Your task to perform on an android device: turn off improve location accuracy Image 0: 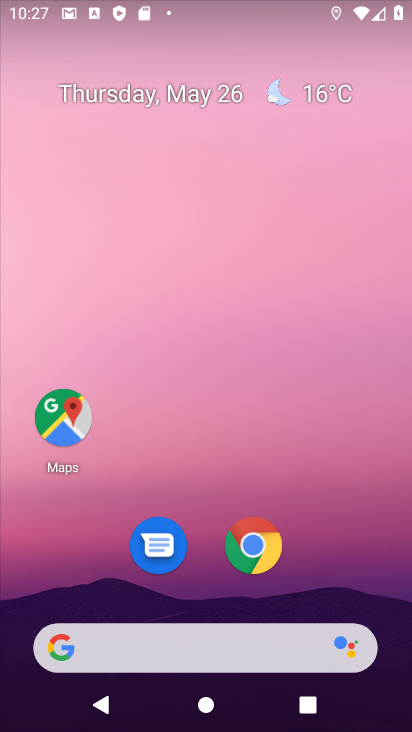
Step 0: press home button
Your task to perform on an android device: turn off improve location accuracy Image 1: 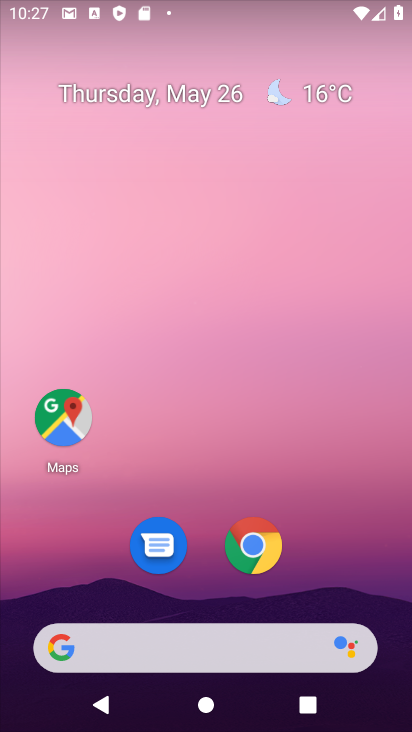
Step 1: drag from (210, 576) to (213, 173)
Your task to perform on an android device: turn off improve location accuracy Image 2: 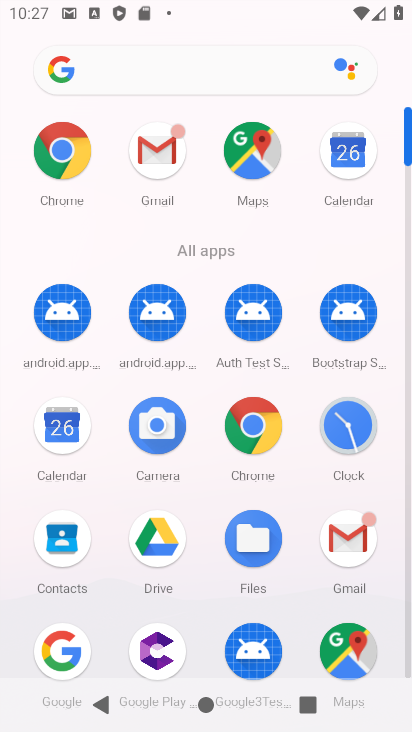
Step 2: drag from (385, 598) to (341, 143)
Your task to perform on an android device: turn off improve location accuracy Image 3: 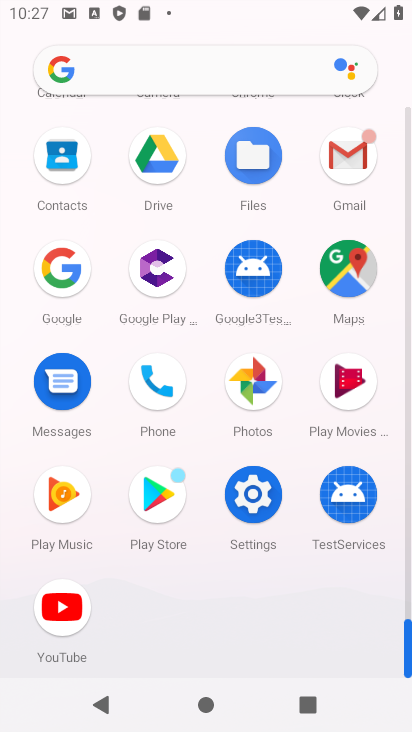
Step 3: click (245, 487)
Your task to perform on an android device: turn off improve location accuracy Image 4: 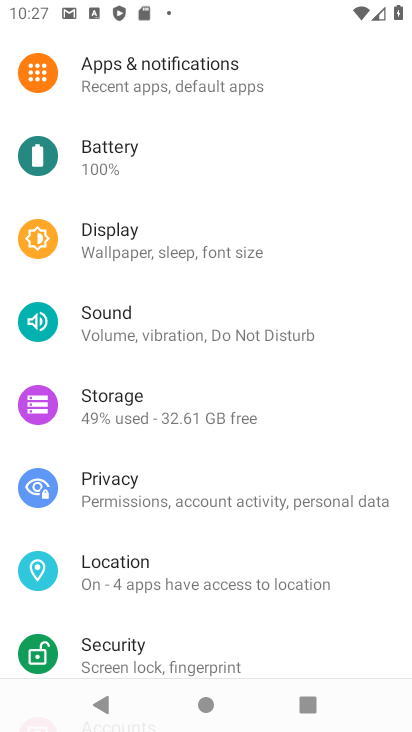
Step 4: click (120, 565)
Your task to perform on an android device: turn off improve location accuracy Image 5: 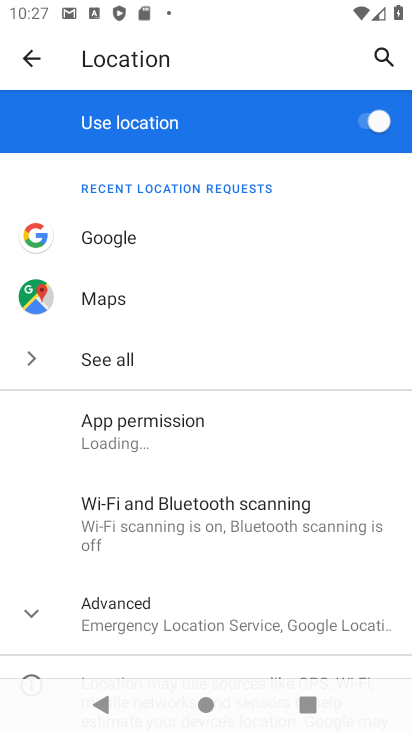
Step 5: drag from (271, 574) to (243, 231)
Your task to perform on an android device: turn off improve location accuracy Image 6: 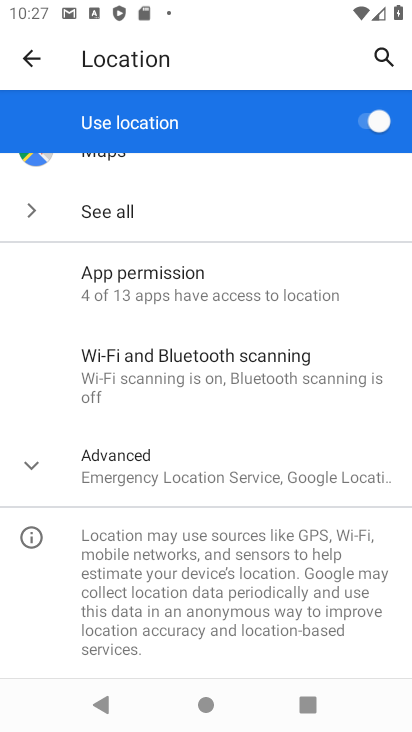
Step 6: click (127, 470)
Your task to perform on an android device: turn off improve location accuracy Image 7: 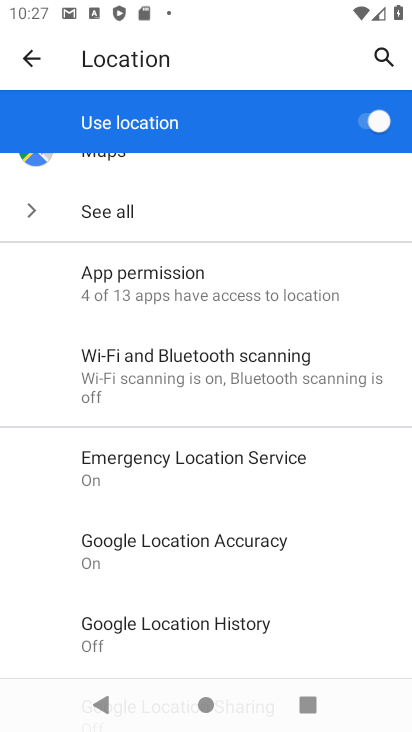
Step 7: click (161, 546)
Your task to perform on an android device: turn off improve location accuracy Image 8: 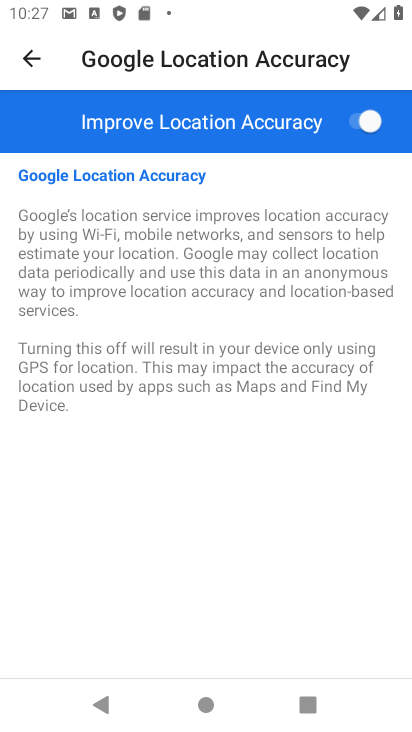
Step 8: click (374, 128)
Your task to perform on an android device: turn off improve location accuracy Image 9: 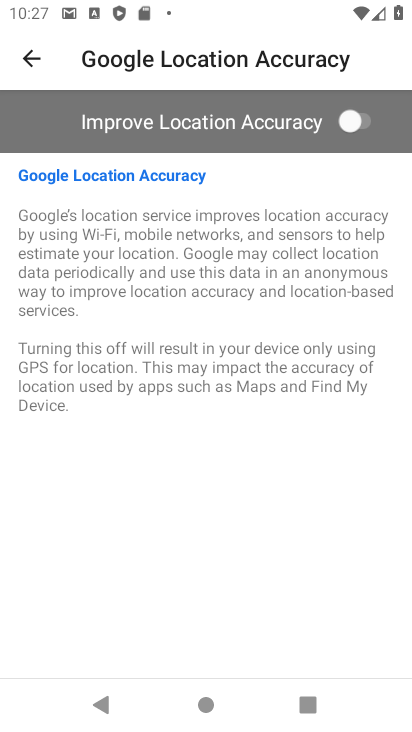
Step 9: task complete